Your task to perform on an android device: What's the weather going to be tomorrow? Image 0: 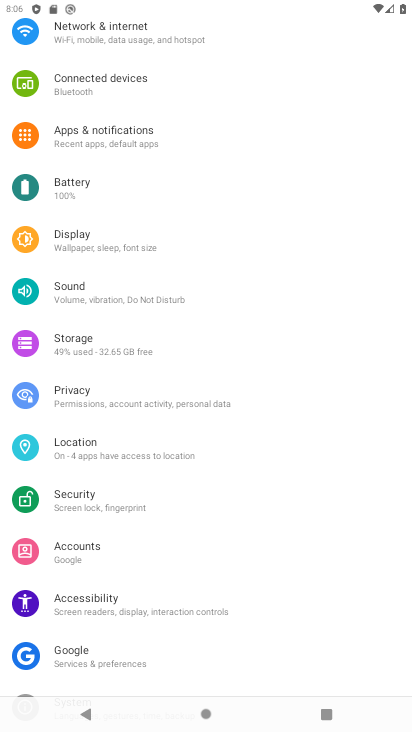
Step 0: press home button
Your task to perform on an android device: What's the weather going to be tomorrow? Image 1: 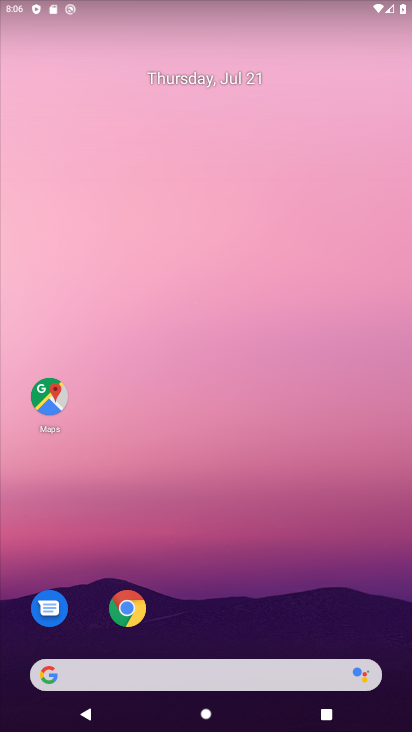
Step 1: click (161, 685)
Your task to perform on an android device: What's the weather going to be tomorrow? Image 2: 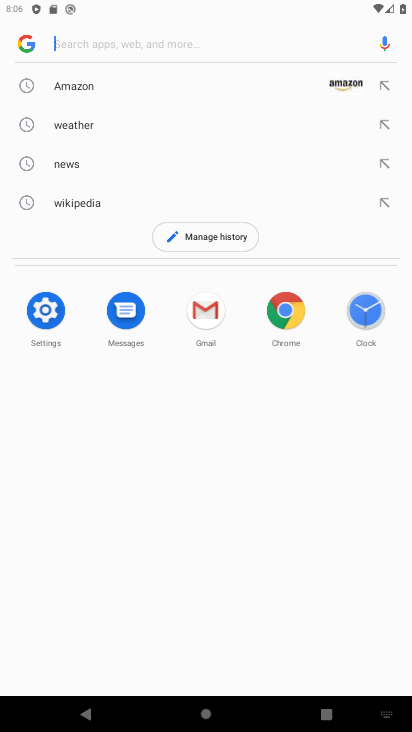
Step 2: type "What's the weather going to be tomorrow?"
Your task to perform on an android device: What's the weather going to be tomorrow? Image 3: 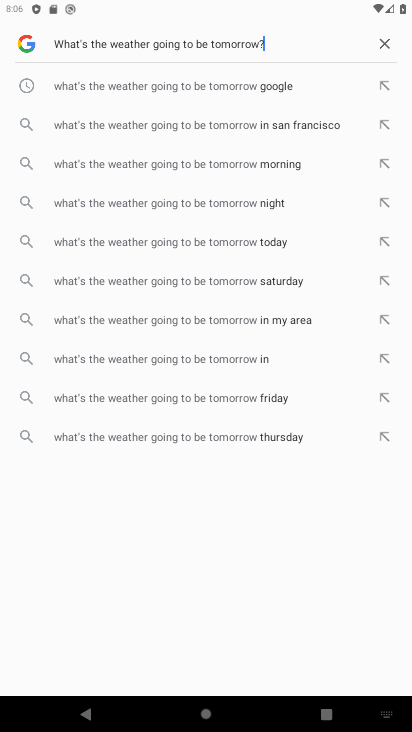
Step 3: type ""
Your task to perform on an android device: What's the weather going to be tomorrow? Image 4: 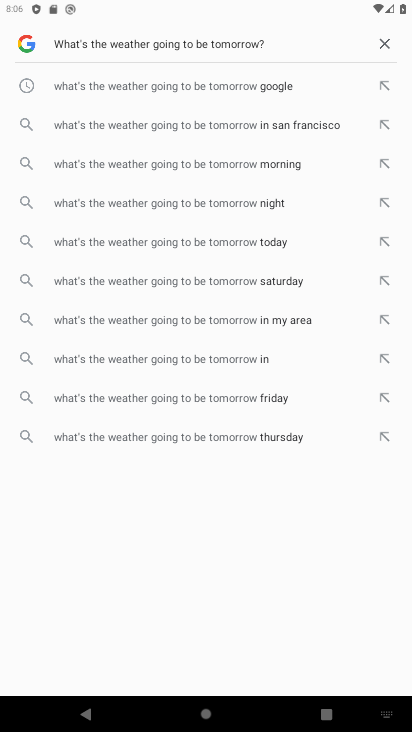
Step 4: type ""
Your task to perform on an android device: What's the weather going to be tomorrow? Image 5: 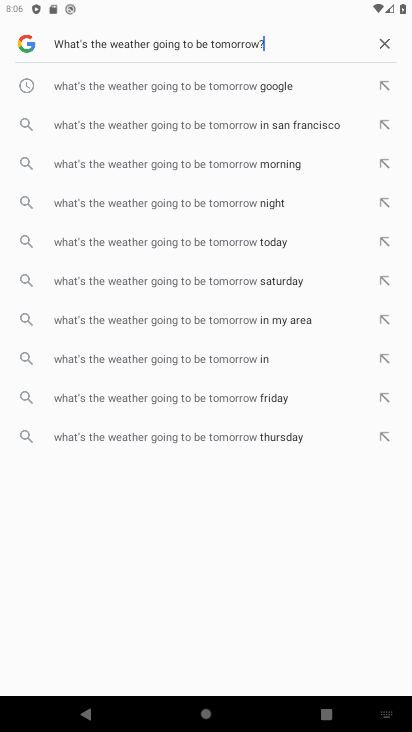
Step 5: type ""
Your task to perform on an android device: What's the weather going to be tomorrow? Image 6: 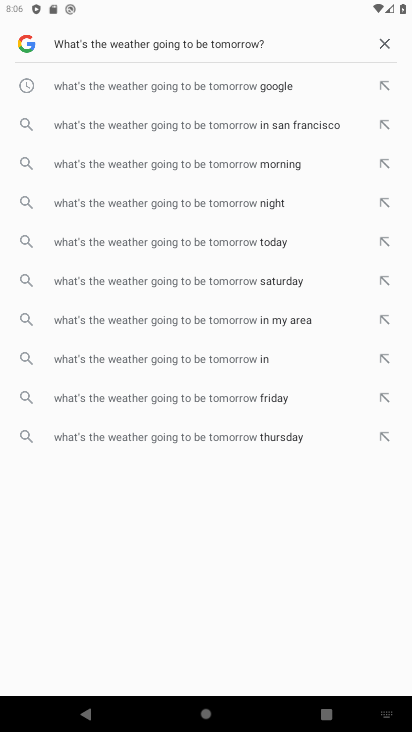
Step 6: task complete